Your task to perform on an android device: change the clock display to show seconds Image 0: 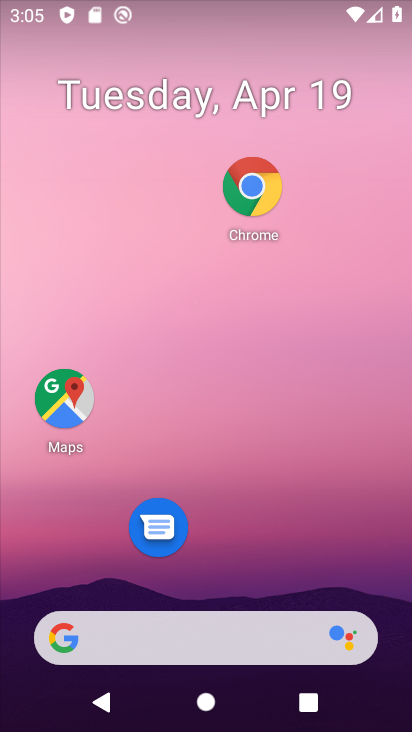
Step 0: drag from (257, 578) to (307, 196)
Your task to perform on an android device: change the clock display to show seconds Image 1: 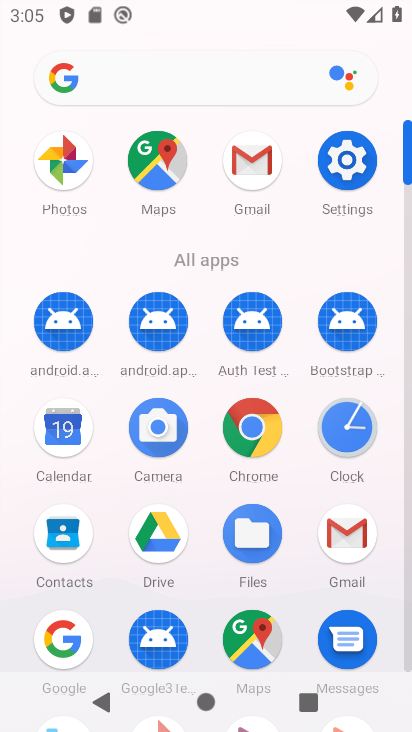
Step 1: click (348, 422)
Your task to perform on an android device: change the clock display to show seconds Image 2: 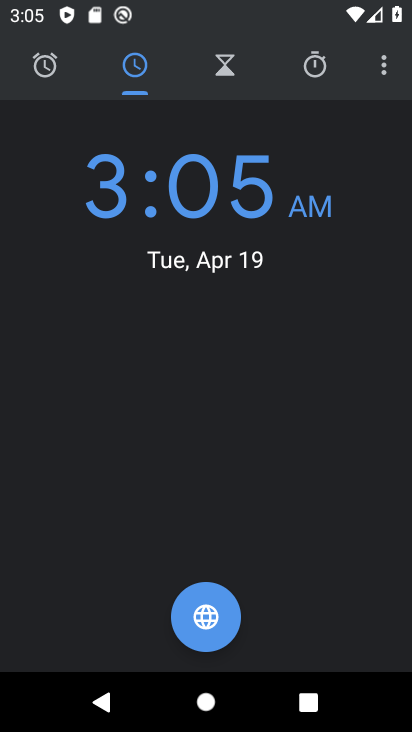
Step 2: click (380, 65)
Your task to perform on an android device: change the clock display to show seconds Image 3: 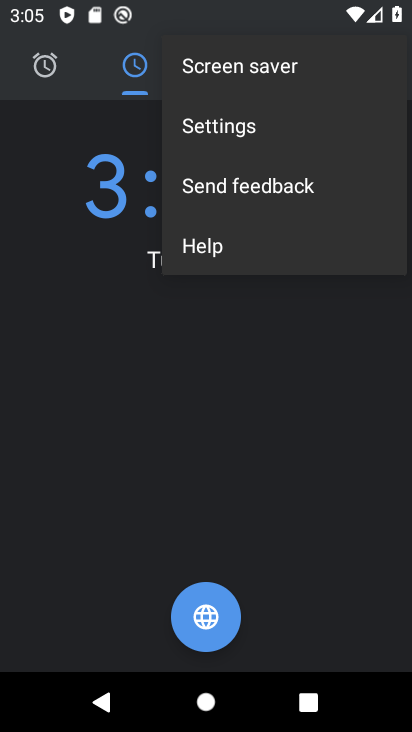
Step 3: click (267, 132)
Your task to perform on an android device: change the clock display to show seconds Image 4: 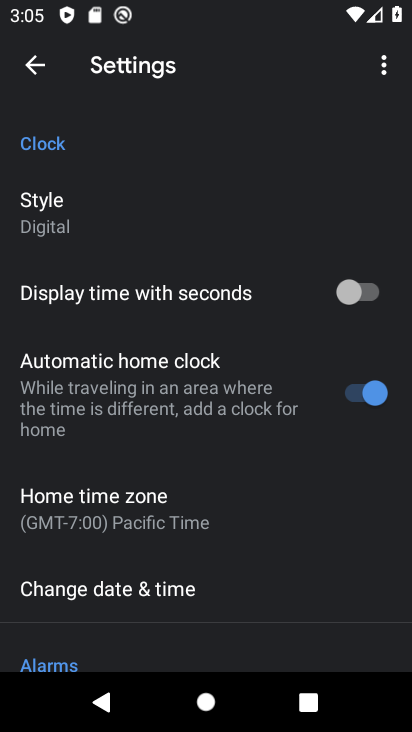
Step 4: drag from (257, 573) to (271, 530)
Your task to perform on an android device: change the clock display to show seconds Image 5: 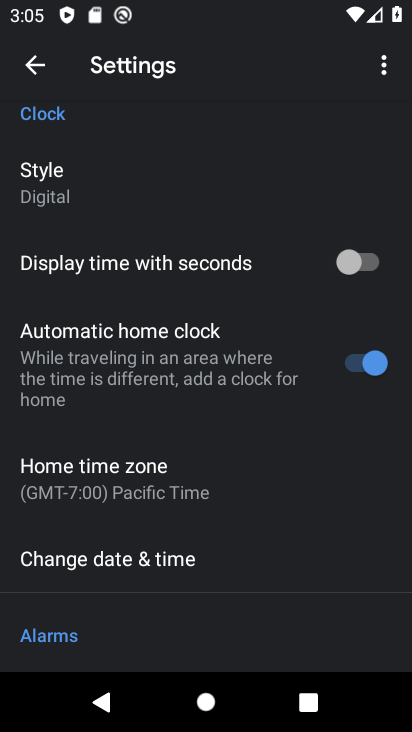
Step 5: click (372, 264)
Your task to perform on an android device: change the clock display to show seconds Image 6: 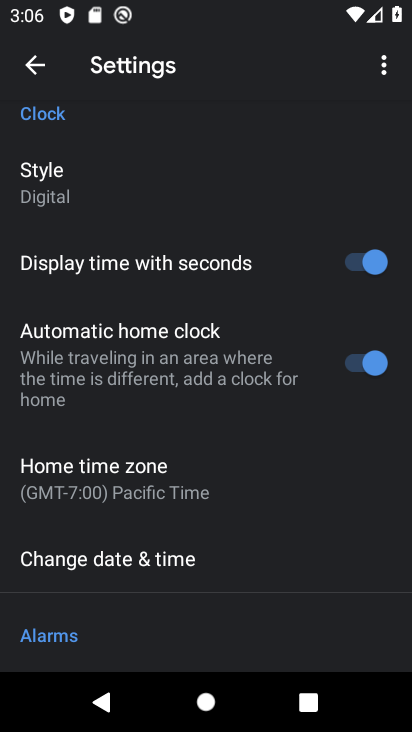
Step 6: task complete